Your task to perform on an android device: Open my contact list Image 0: 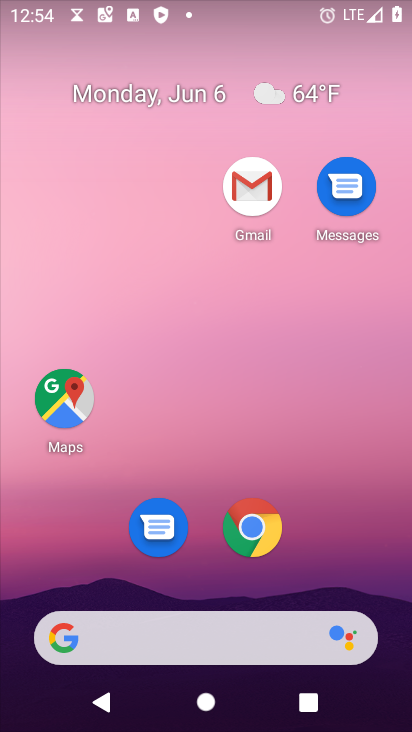
Step 0: drag from (301, 557) to (289, 87)
Your task to perform on an android device: Open my contact list Image 1: 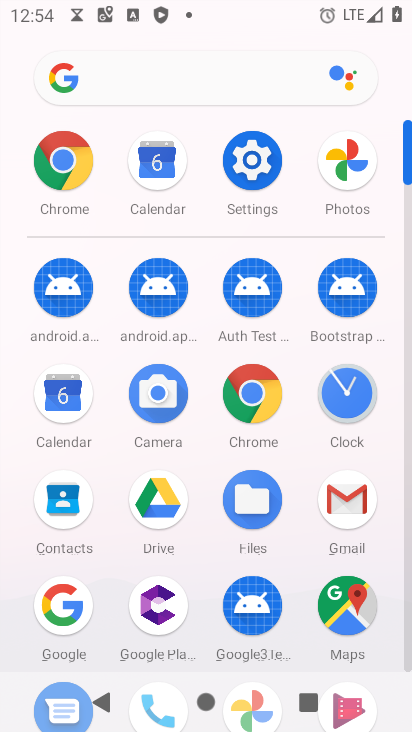
Step 1: click (65, 498)
Your task to perform on an android device: Open my contact list Image 2: 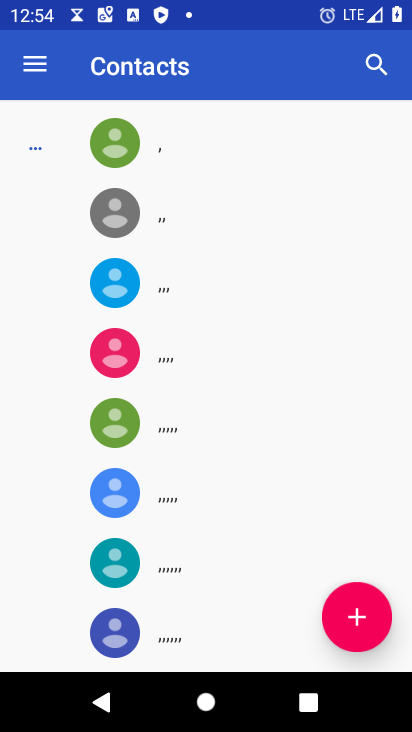
Step 2: task complete